Your task to perform on an android device: all mails in gmail Image 0: 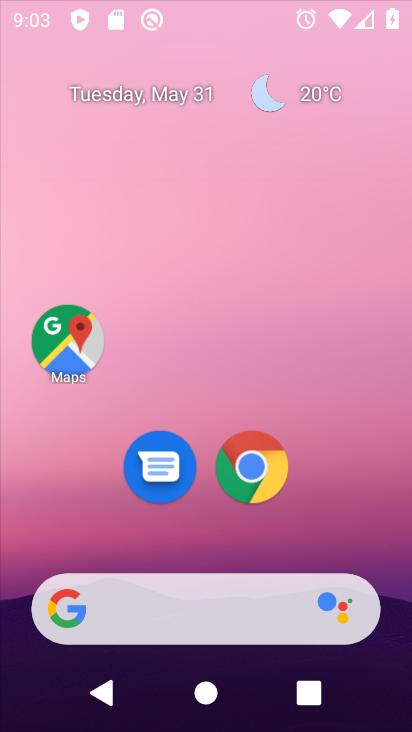
Step 0: click (227, 76)
Your task to perform on an android device: all mails in gmail Image 1: 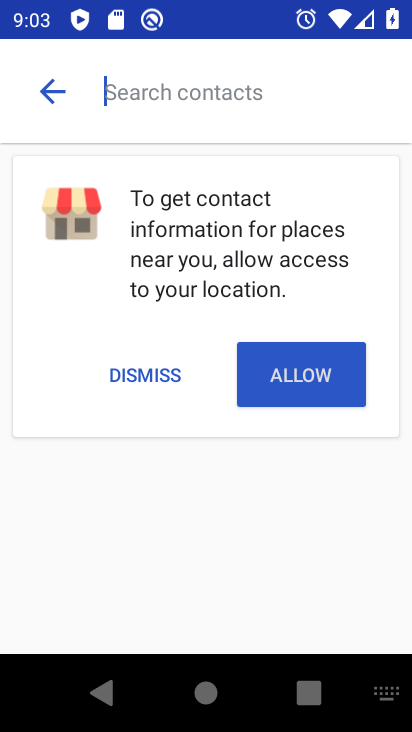
Step 1: press home button
Your task to perform on an android device: all mails in gmail Image 2: 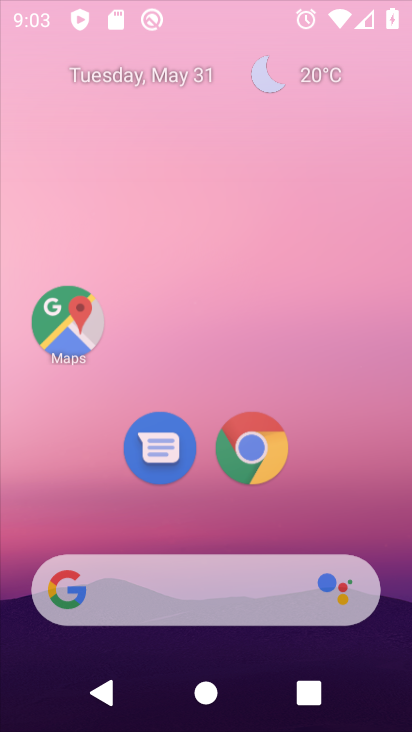
Step 2: drag from (231, 525) to (203, 94)
Your task to perform on an android device: all mails in gmail Image 3: 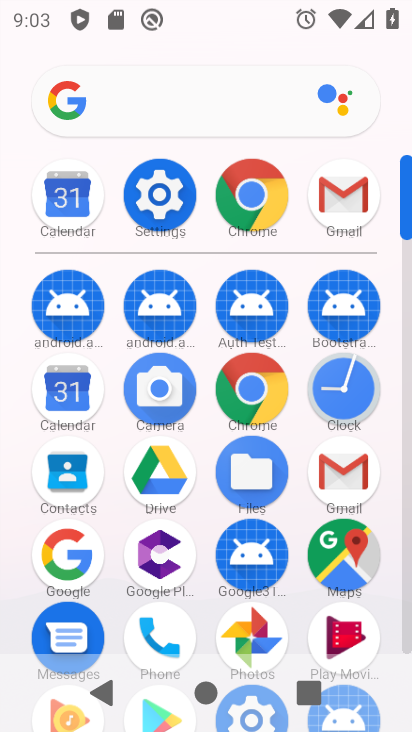
Step 3: click (357, 463)
Your task to perform on an android device: all mails in gmail Image 4: 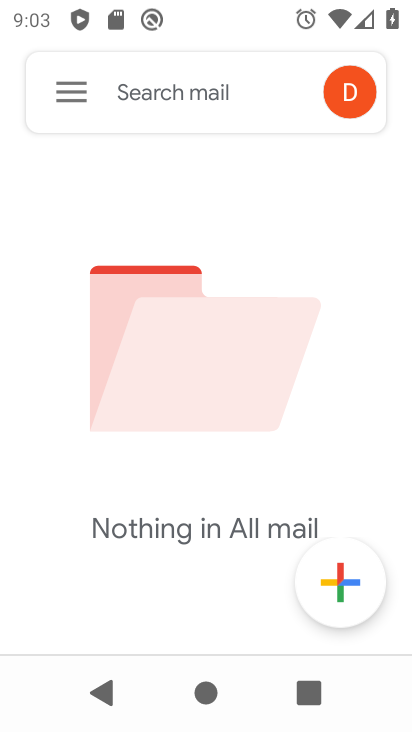
Step 4: click (60, 101)
Your task to perform on an android device: all mails in gmail Image 5: 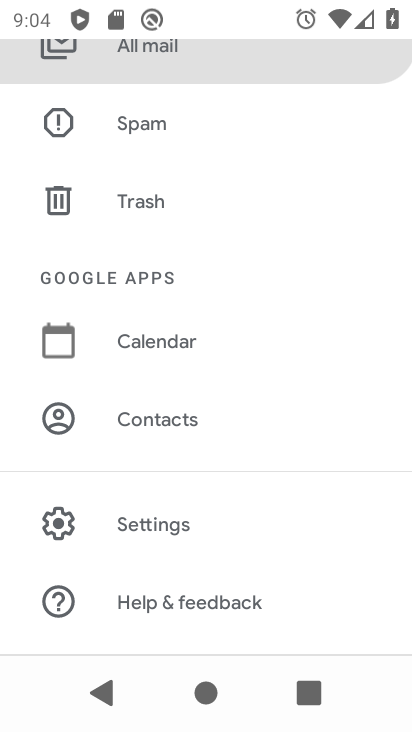
Step 5: drag from (190, 126) to (249, 472)
Your task to perform on an android device: all mails in gmail Image 6: 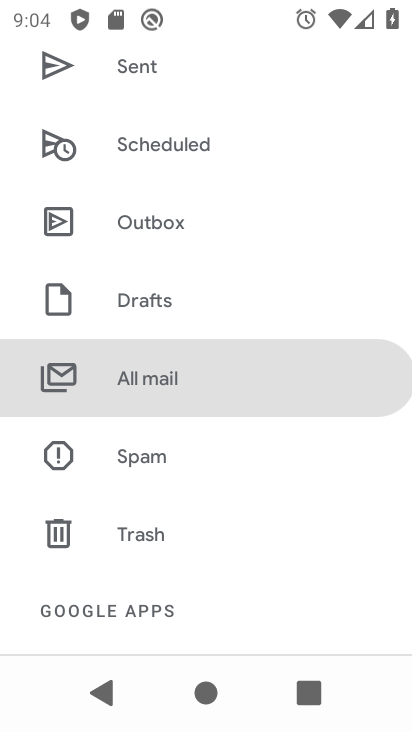
Step 6: click (154, 364)
Your task to perform on an android device: all mails in gmail Image 7: 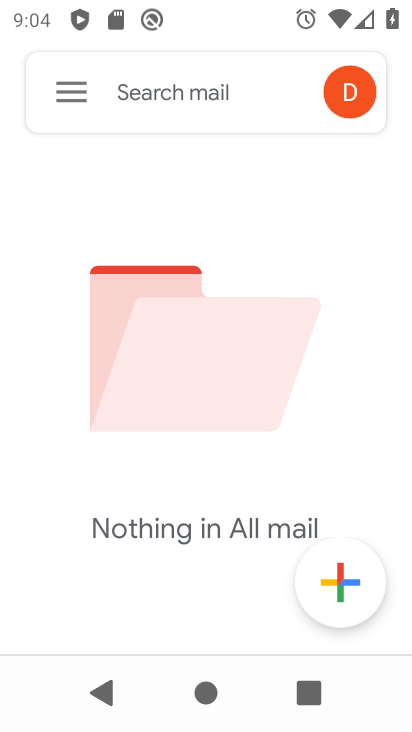
Step 7: task complete